Your task to perform on an android device: Open Google Image 0: 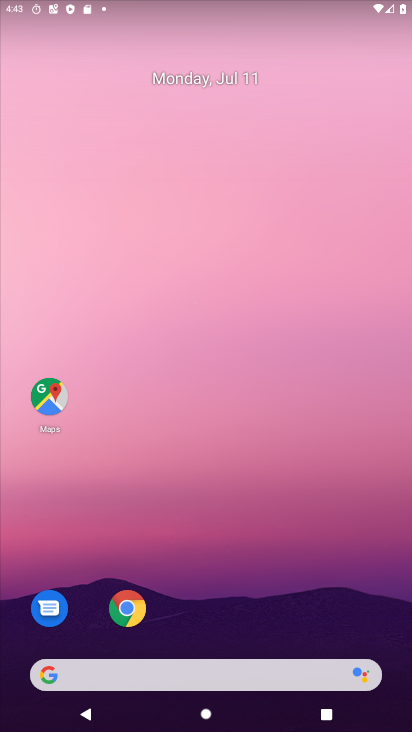
Step 0: drag from (263, 667) to (150, 216)
Your task to perform on an android device: Open Google Image 1: 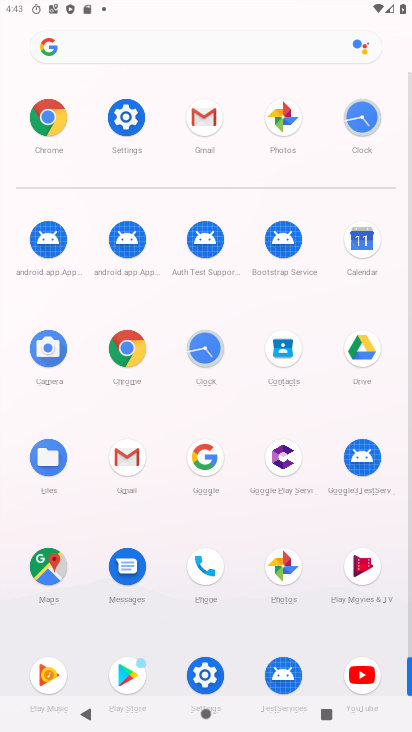
Step 1: click (208, 458)
Your task to perform on an android device: Open Google Image 2: 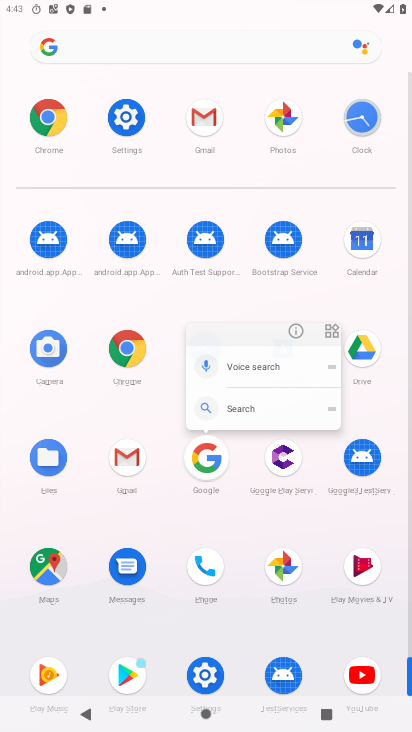
Step 2: click (207, 458)
Your task to perform on an android device: Open Google Image 3: 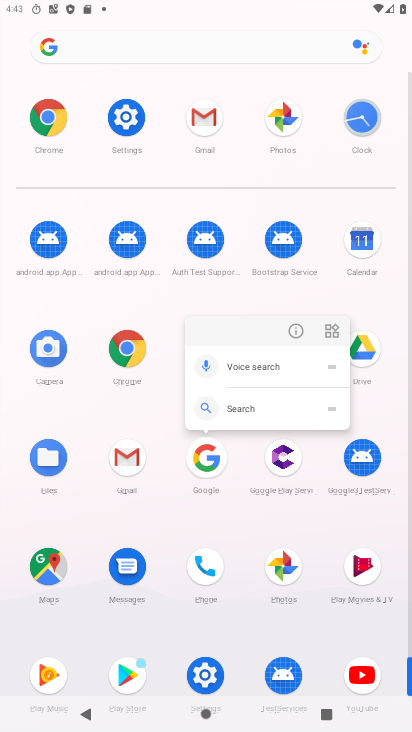
Step 3: click (207, 458)
Your task to perform on an android device: Open Google Image 4: 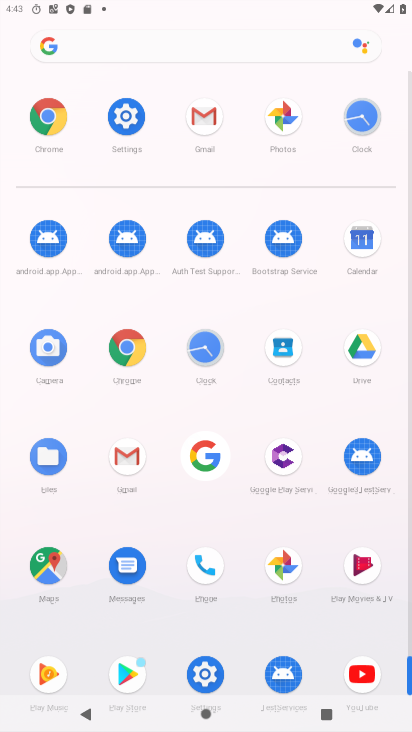
Step 4: click (204, 458)
Your task to perform on an android device: Open Google Image 5: 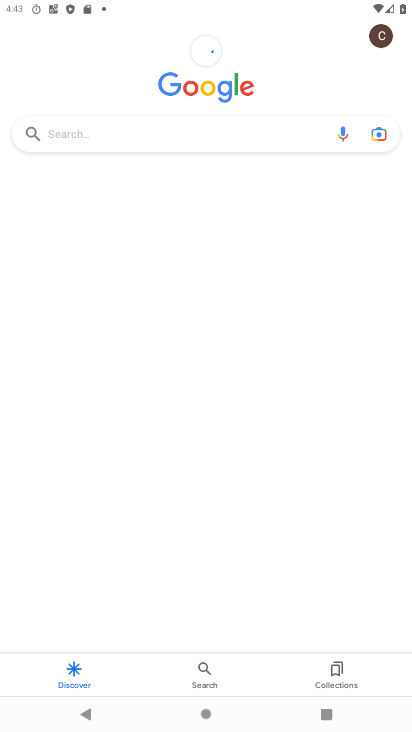
Step 5: click (203, 449)
Your task to perform on an android device: Open Google Image 6: 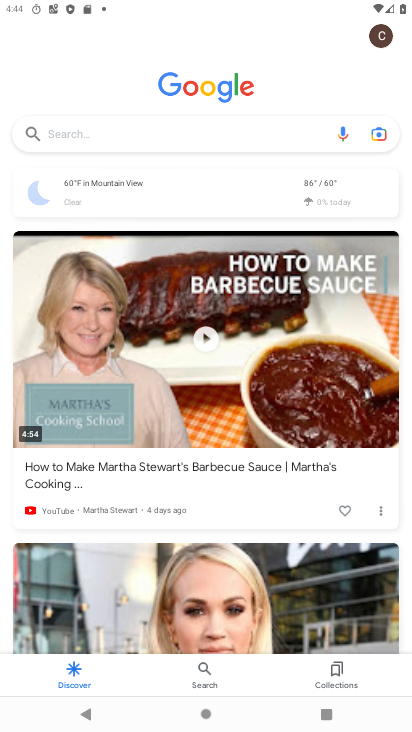
Step 6: task complete